Your task to perform on an android device: Go to eBay Image 0: 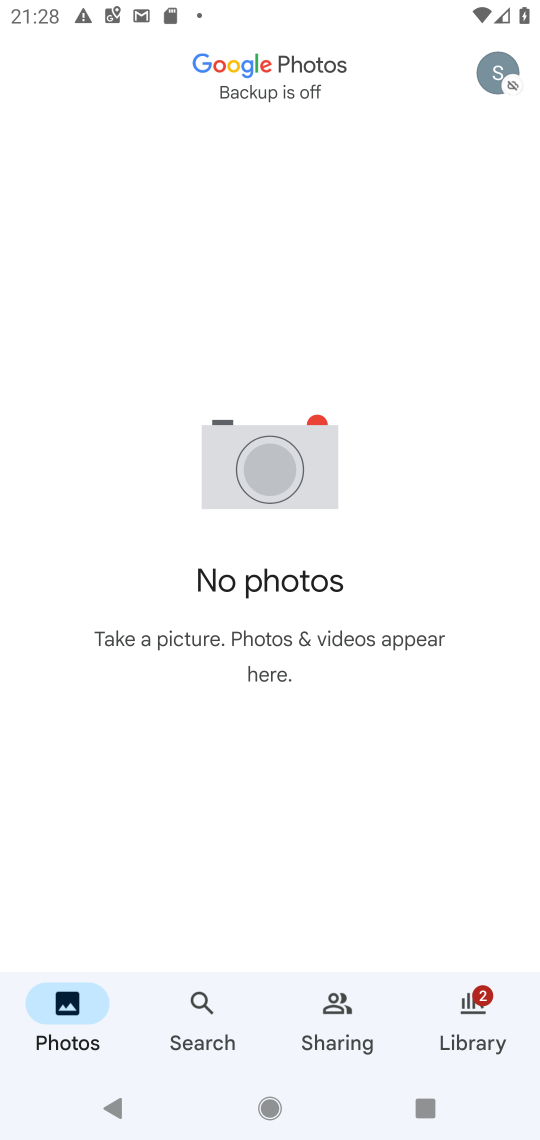
Step 0: press home button
Your task to perform on an android device: Go to eBay Image 1: 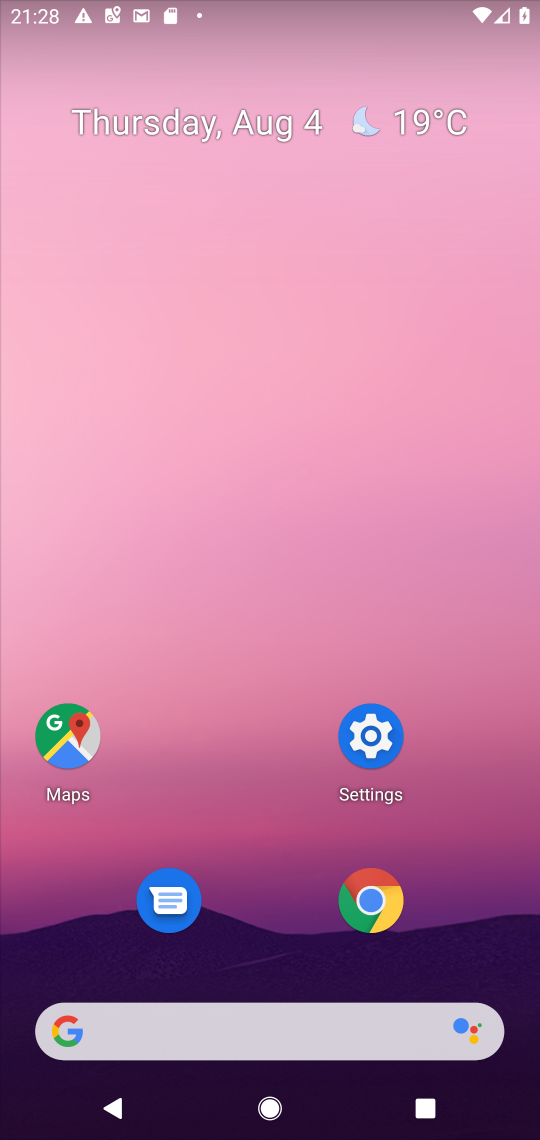
Step 1: click (370, 897)
Your task to perform on an android device: Go to eBay Image 2: 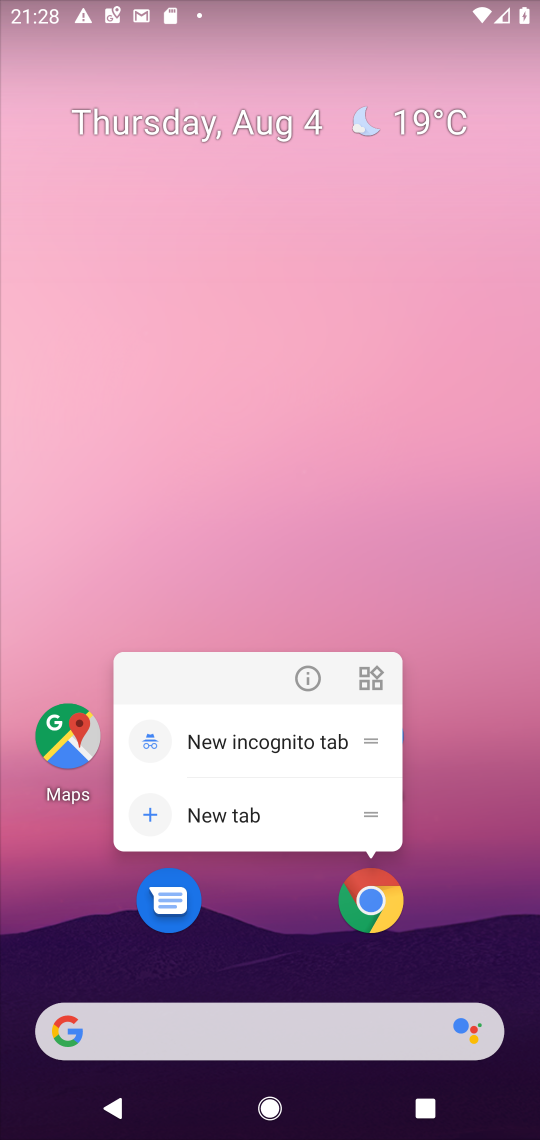
Step 2: click (370, 897)
Your task to perform on an android device: Go to eBay Image 3: 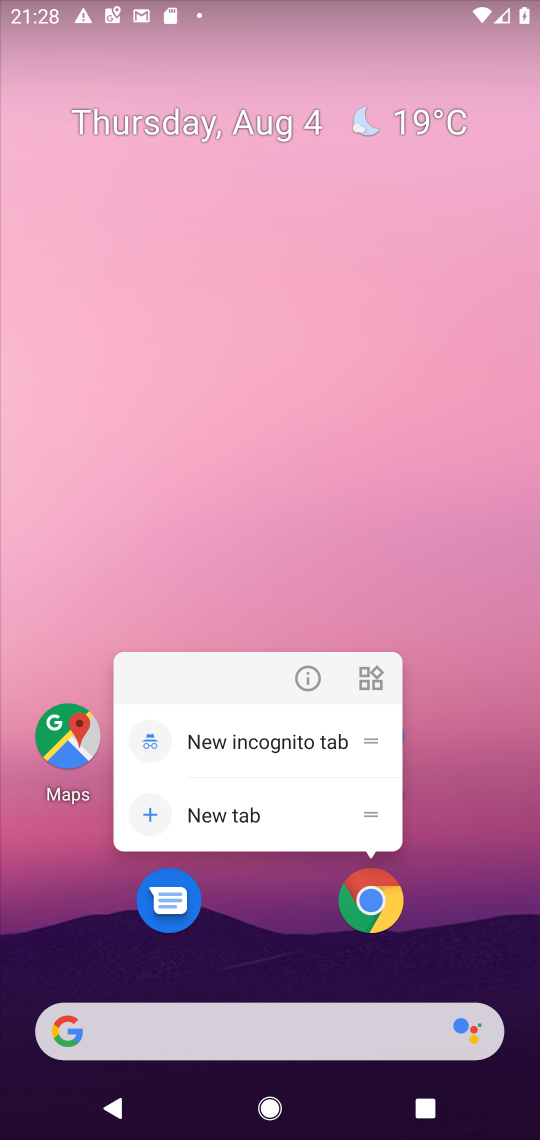
Step 3: click (370, 902)
Your task to perform on an android device: Go to eBay Image 4: 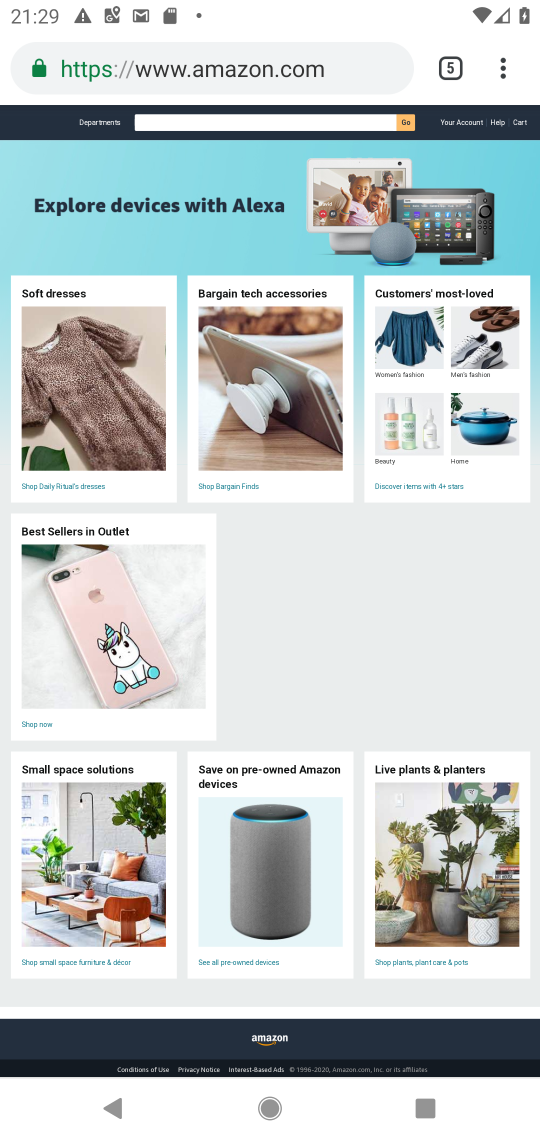
Step 4: drag from (502, 66) to (310, 217)
Your task to perform on an android device: Go to eBay Image 5: 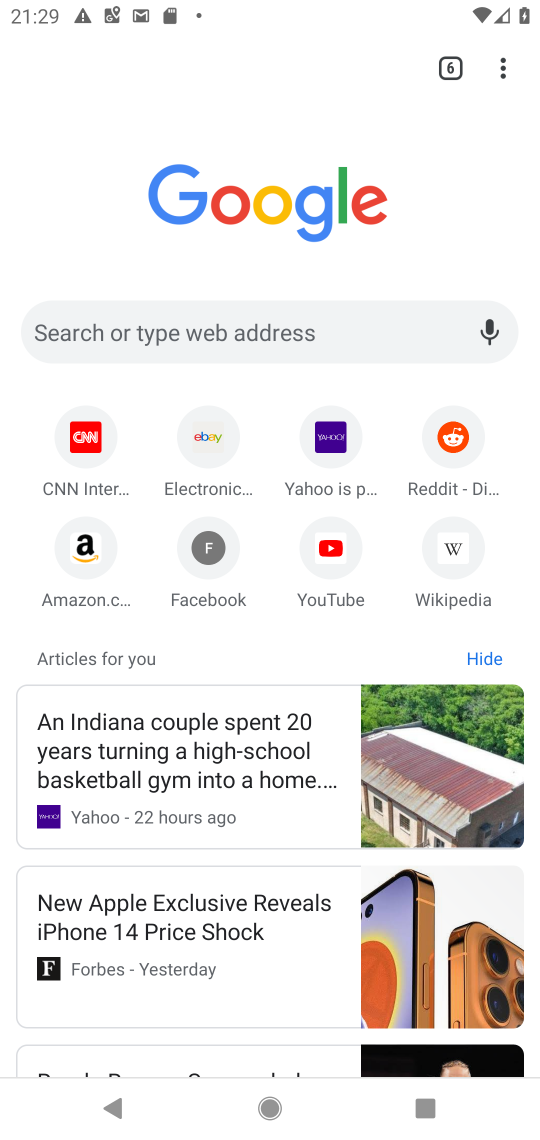
Step 5: click (207, 444)
Your task to perform on an android device: Go to eBay Image 6: 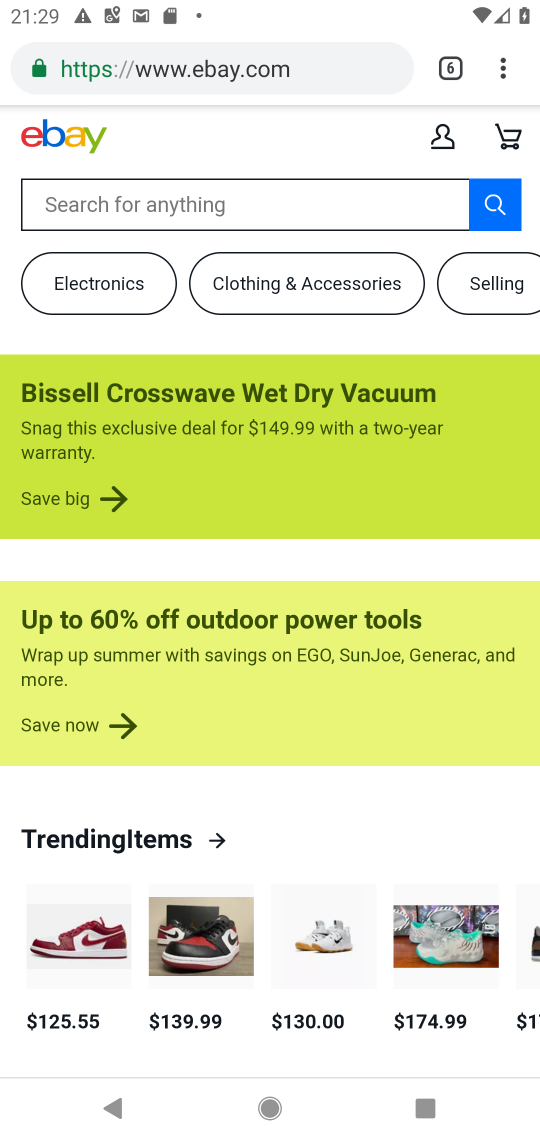
Step 6: task complete